Your task to perform on an android device: Open a new window in Chrome Image 0: 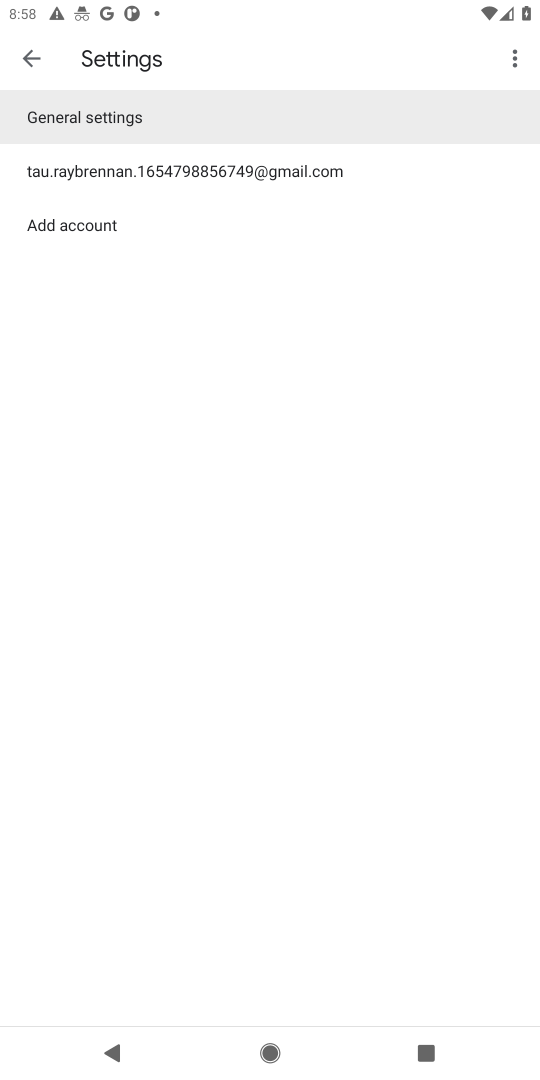
Step 0: press home button
Your task to perform on an android device: Open a new window in Chrome Image 1: 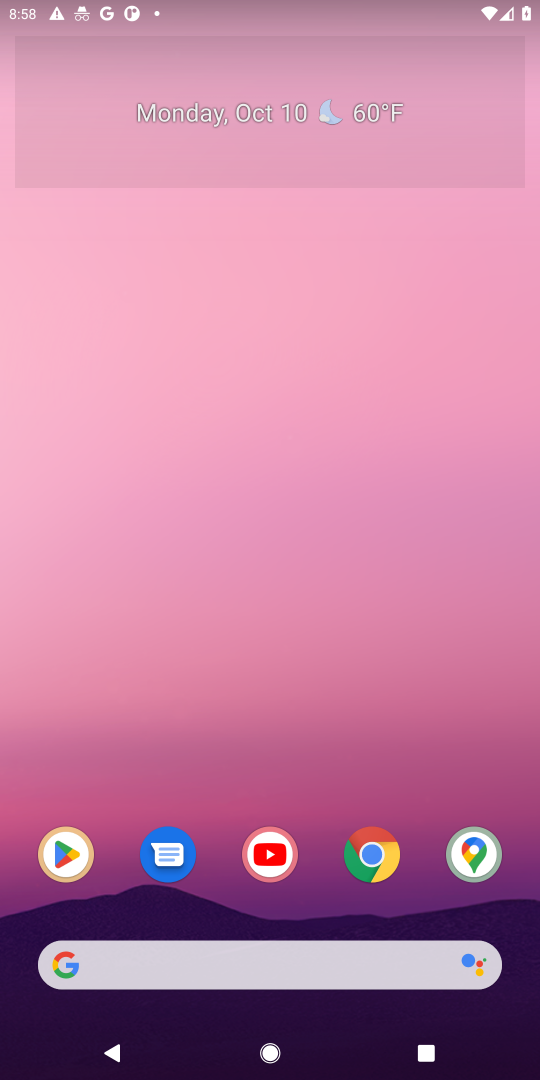
Step 1: click (368, 855)
Your task to perform on an android device: Open a new window in Chrome Image 2: 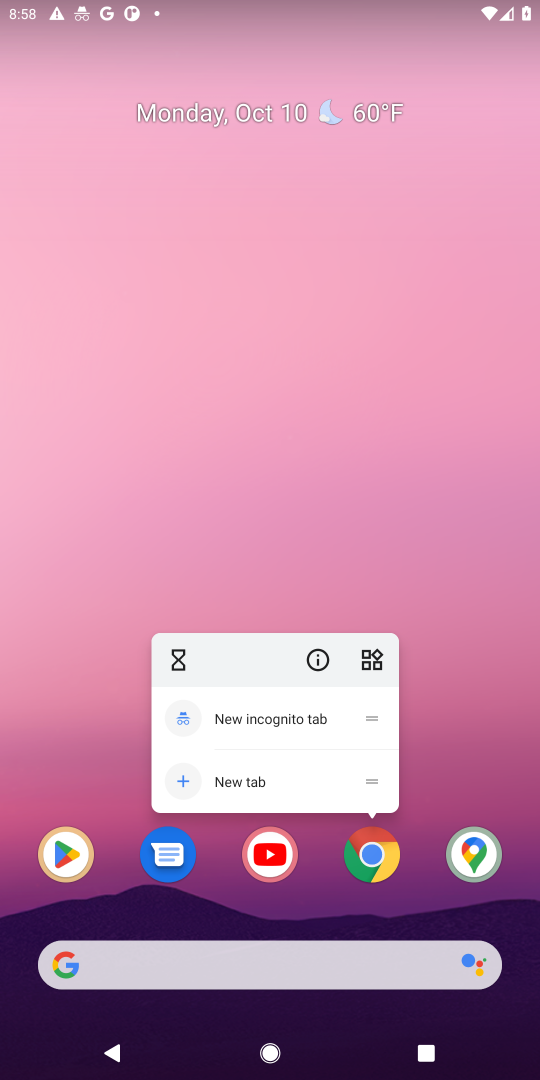
Step 2: click (368, 853)
Your task to perform on an android device: Open a new window in Chrome Image 3: 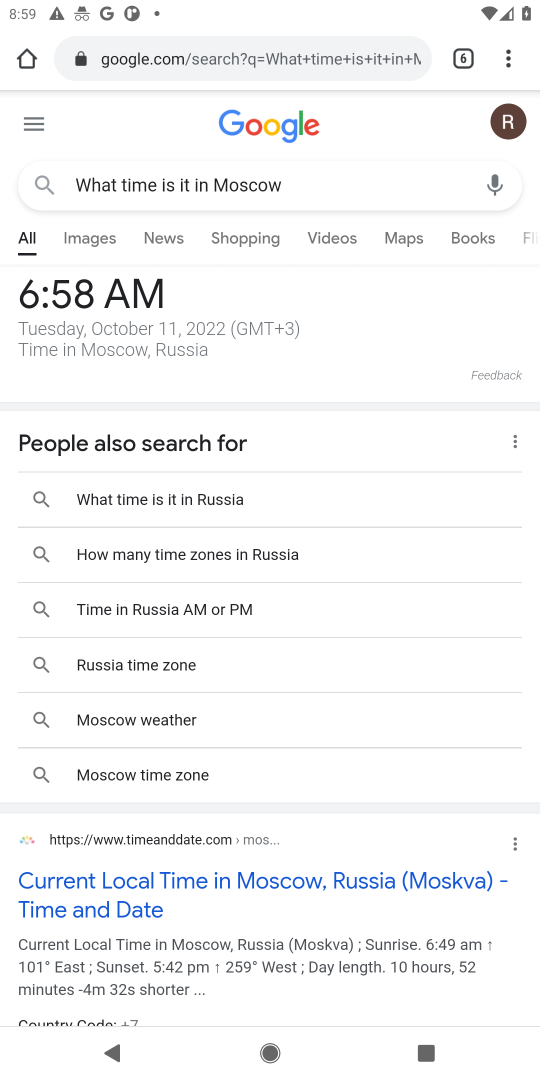
Step 3: task complete